Your task to perform on an android device: visit the assistant section in the google photos Image 0: 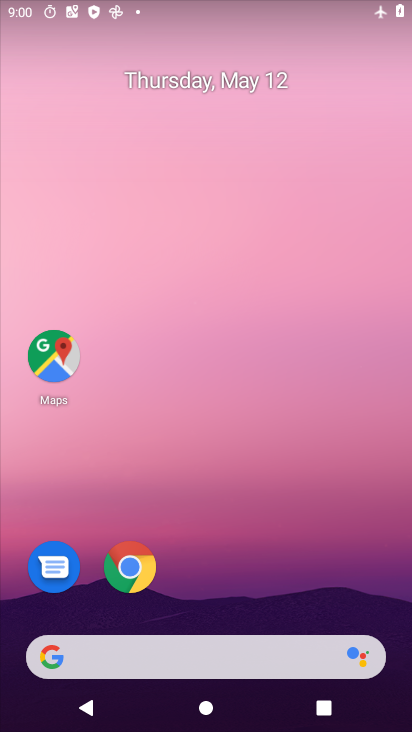
Step 0: drag from (255, 625) to (251, 134)
Your task to perform on an android device: visit the assistant section in the google photos Image 1: 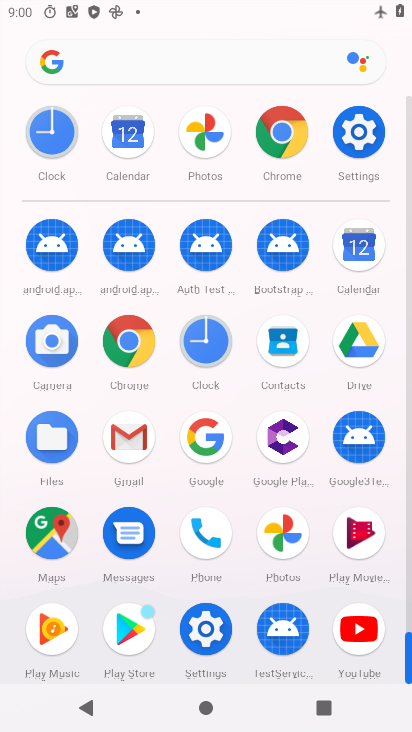
Step 1: click (280, 522)
Your task to perform on an android device: visit the assistant section in the google photos Image 2: 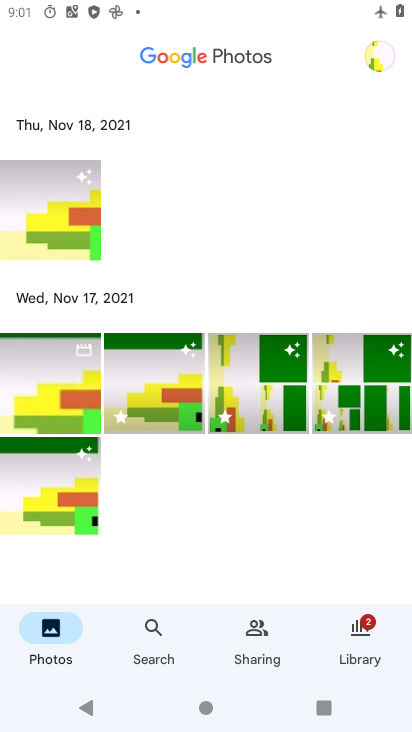
Step 2: click (392, 59)
Your task to perform on an android device: visit the assistant section in the google photos Image 3: 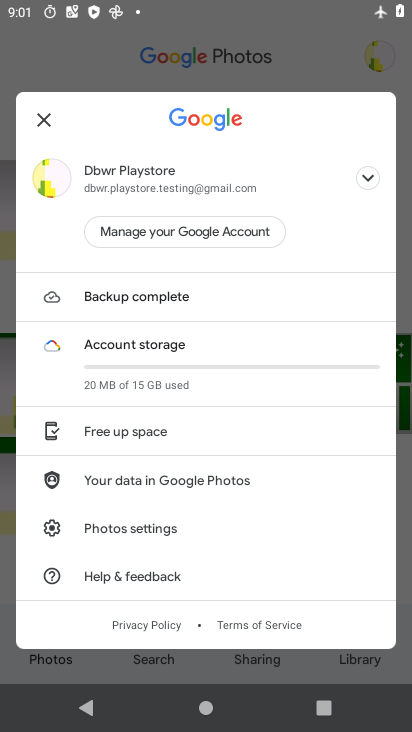
Step 3: task complete